Your task to perform on an android device: Go to Reddit.com Image 0: 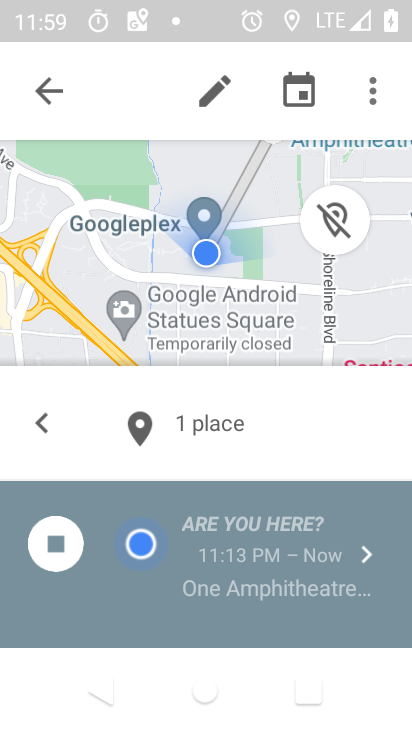
Step 0: press home button
Your task to perform on an android device: Go to Reddit.com Image 1: 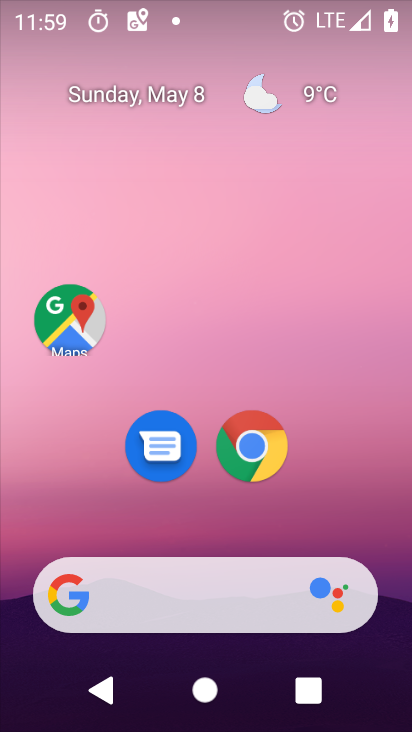
Step 1: click (257, 448)
Your task to perform on an android device: Go to Reddit.com Image 2: 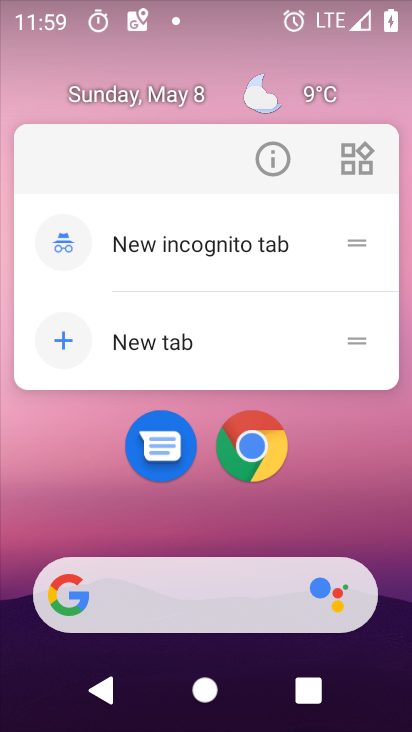
Step 2: click (246, 455)
Your task to perform on an android device: Go to Reddit.com Image 3: 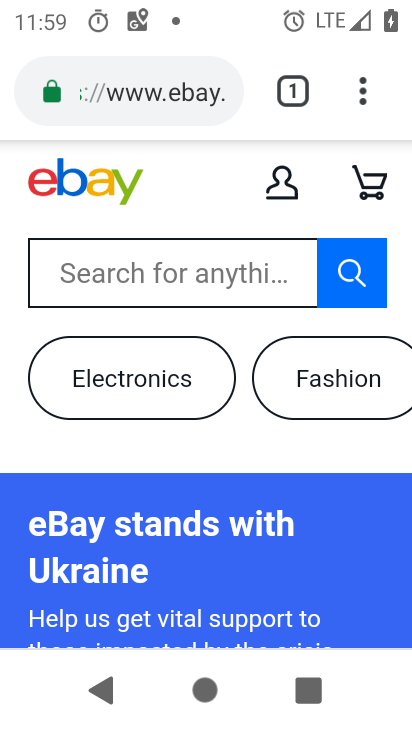
Step 3: click (103, 96)
Your task to perform on an android device: Go to Reddit.com Image 4: 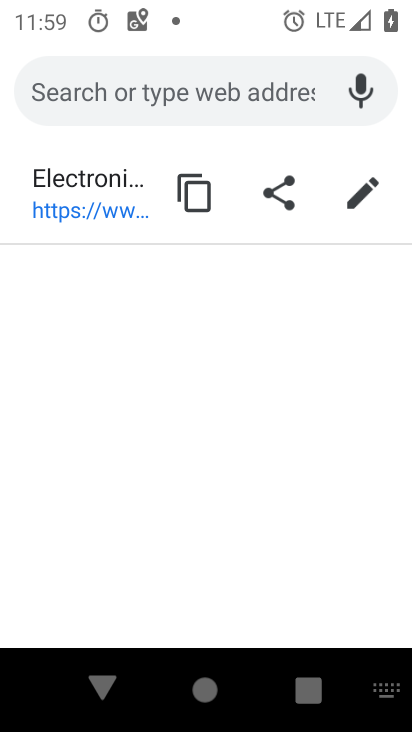
Step 4: type "reddit.com"
Your task to perform on an android device: Go to Reddit.com Image 5: 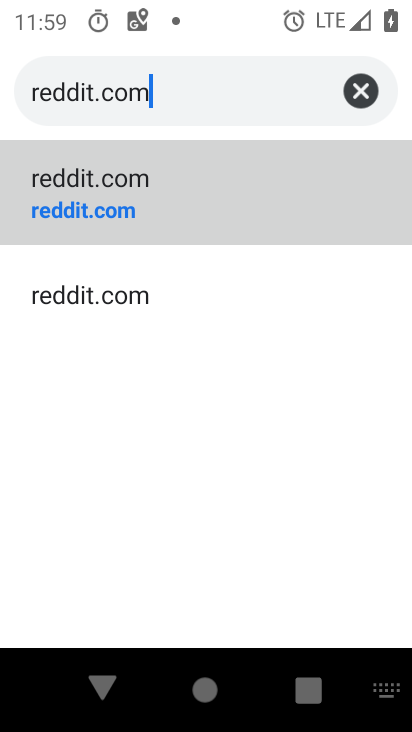
Step 5: click (50, 215)
Your task to perform on an android device: Go to Reddit.com Image 6: 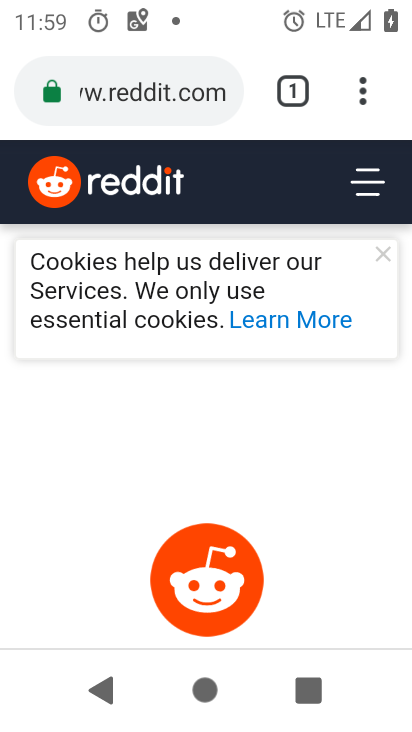
Step 6: task complete